Your task to perform on an android device: Go to Maps Image 0: 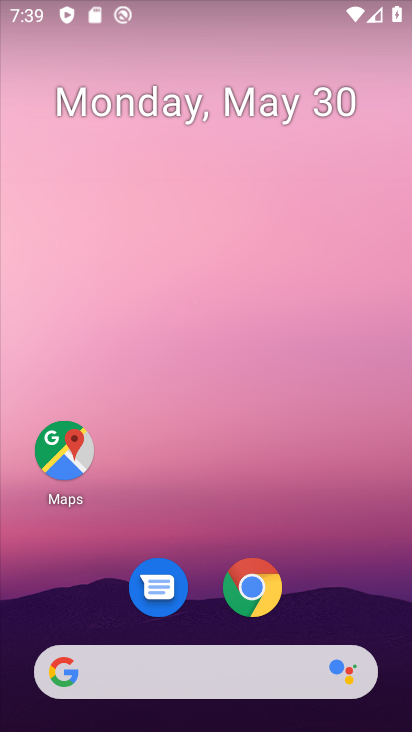
Step 0: drag from (316, 596) to (234, 10)
Your task to perform on an android device: Go to Maps Image 1: 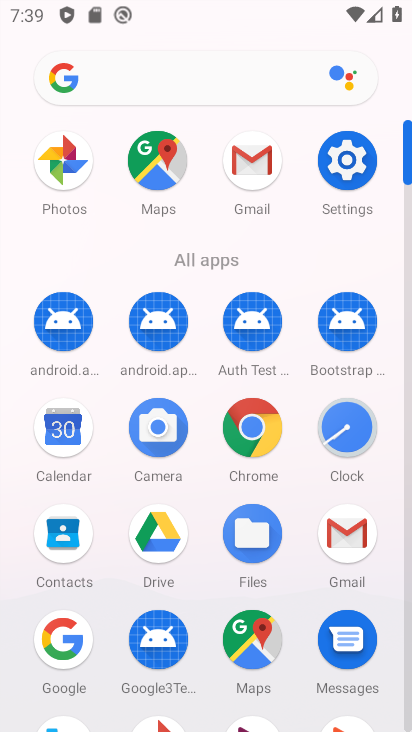
Step 1: drag from (11, 625) to (41, 314)
Your task to perform on an android device: Go to Maps Image 2: 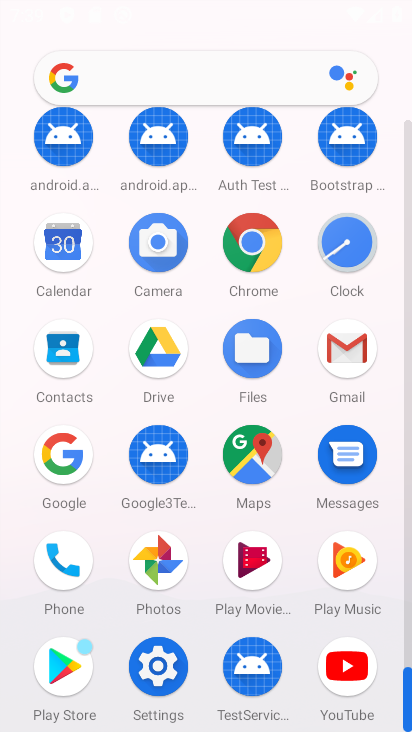
Step 2: click (257, 453)
Your task to perform on an android device: Go to Maps Image 3: 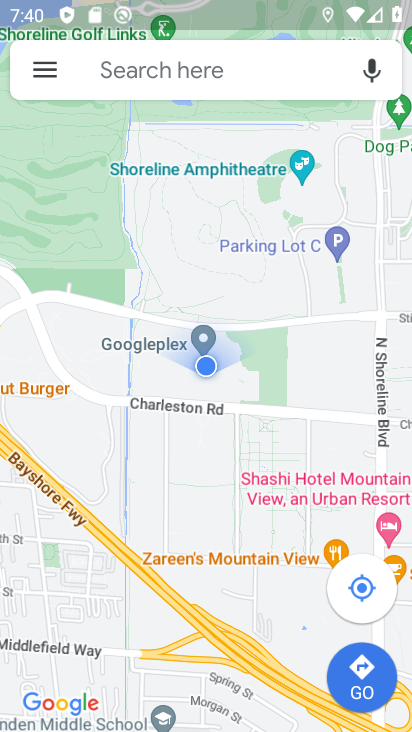
Step 3: task complete